Your task to perform on an android device: Open Google Maps Image 0: 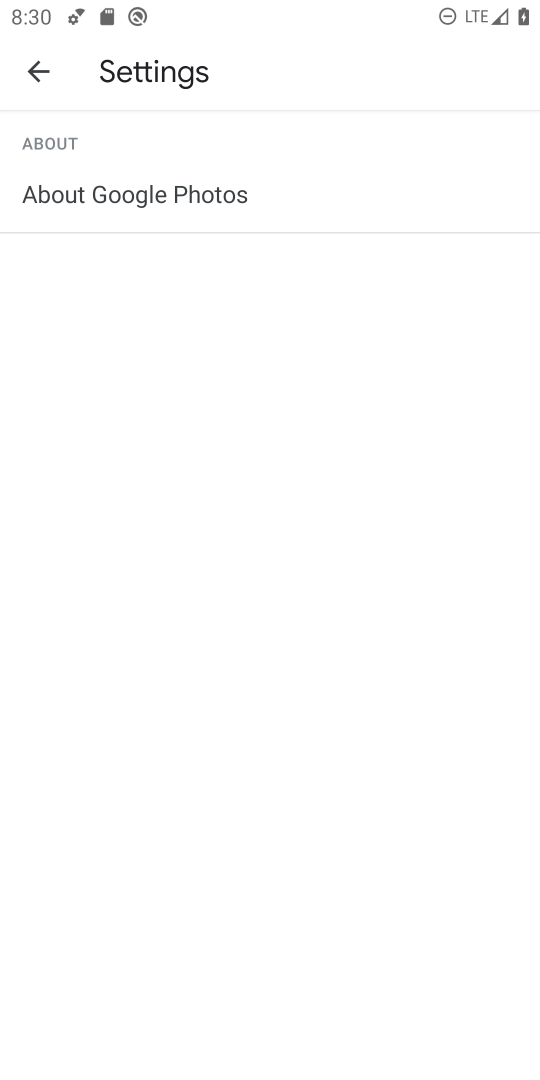
Step 0: press home button
Your task to perform on an android device: Open Google Maps Image 1: 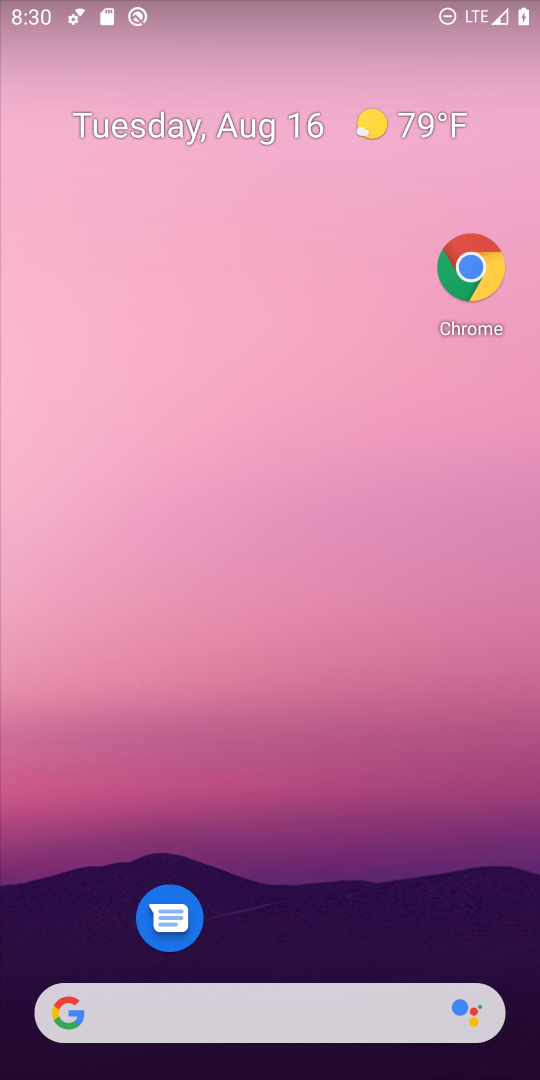
Step 1: drag from (288, 974) to (308, 230)
Your task to perform on an android device: Open Google Maps Image 2: 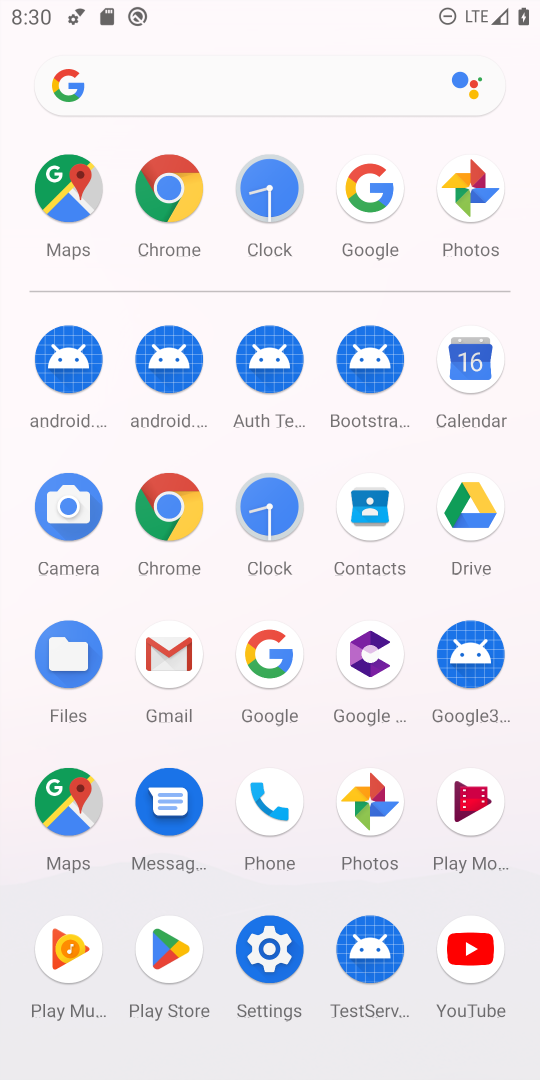
Step 2: click (84, 816)
Your task to perform on an android device: Open Google Maps Image 3: 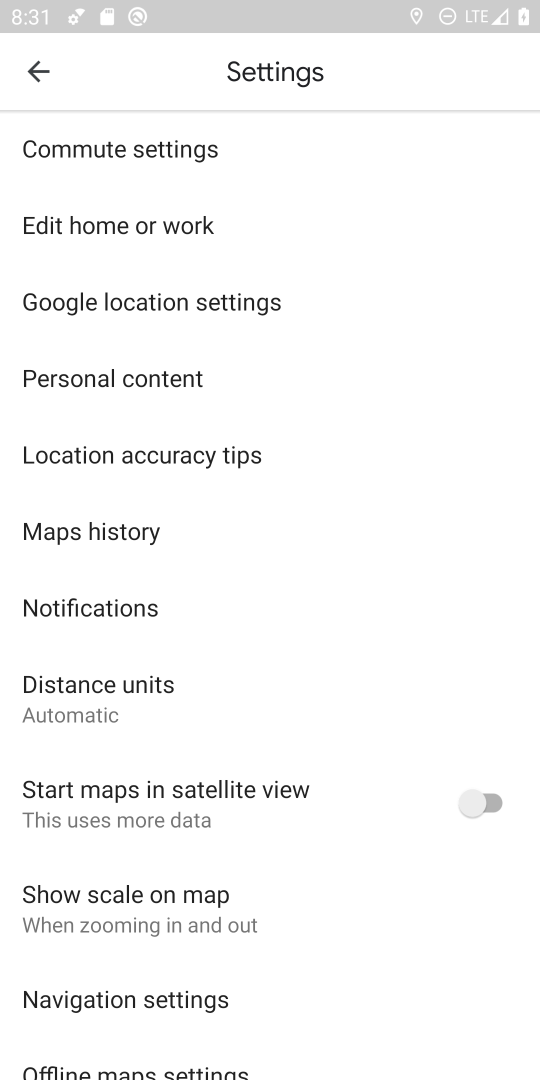
Step 3: click (39, 64)
Your task to perform on an android device: Open Google Maps Image 4: 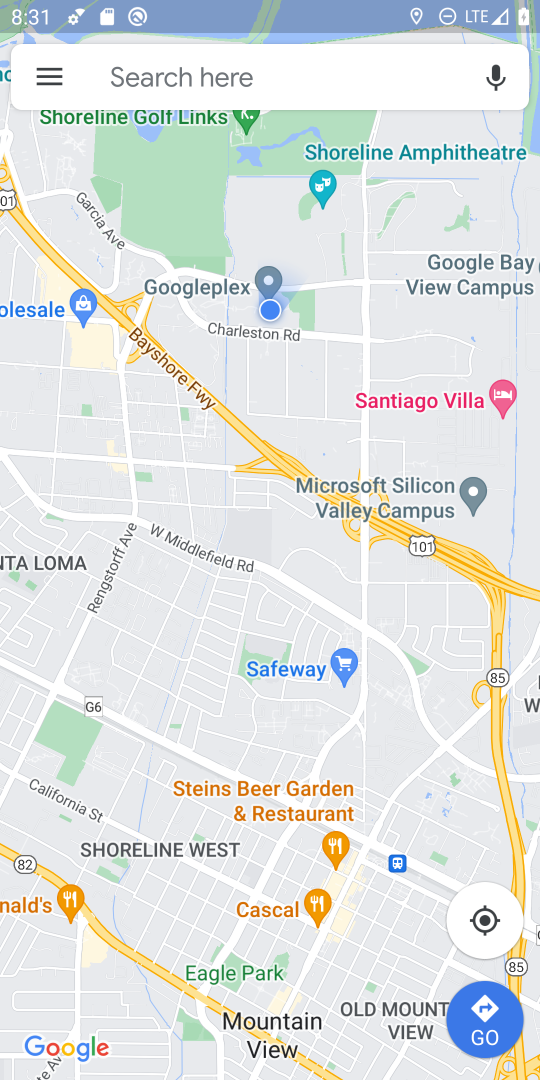
Step 4: task complete